Your task to perform on an android device: Go to Google maps Image 0: 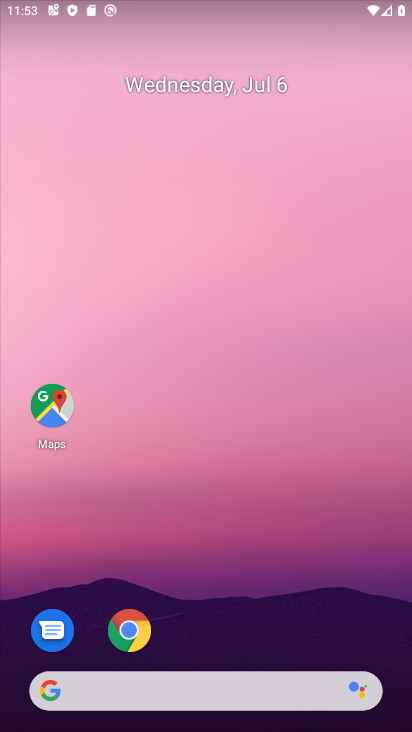
Step 0: drag from (171, 651) to (181, 309)
Your task to perform on an android device: Go to Google maps Image 1: 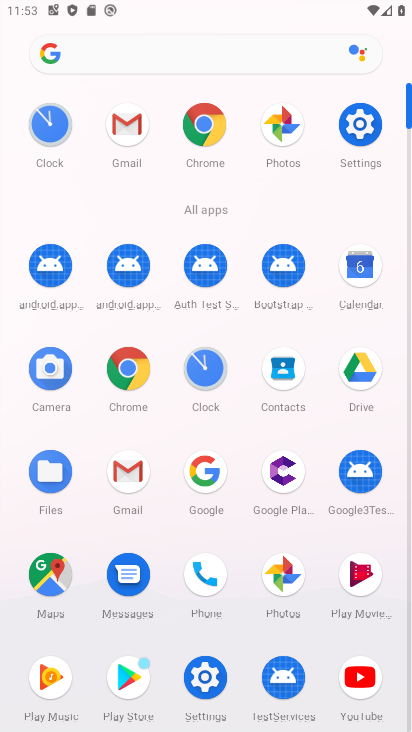
Step 1: click (60, 563)
Your task to perform on an android device: Go to Google maps Image 2: 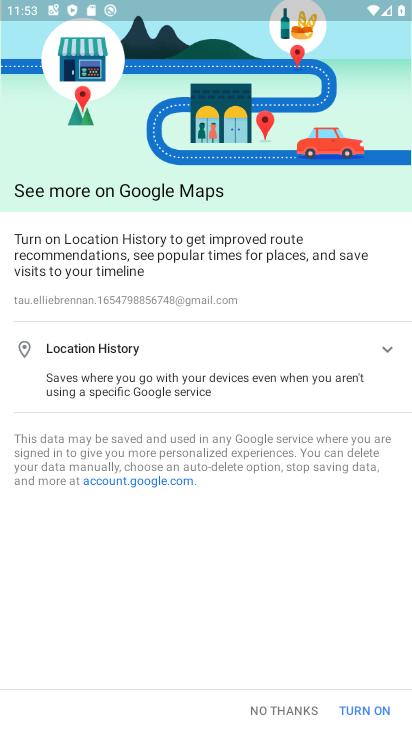
Step 2: click (268, 717)
Your task to perform on an android device: Go to Google maps Image 3: 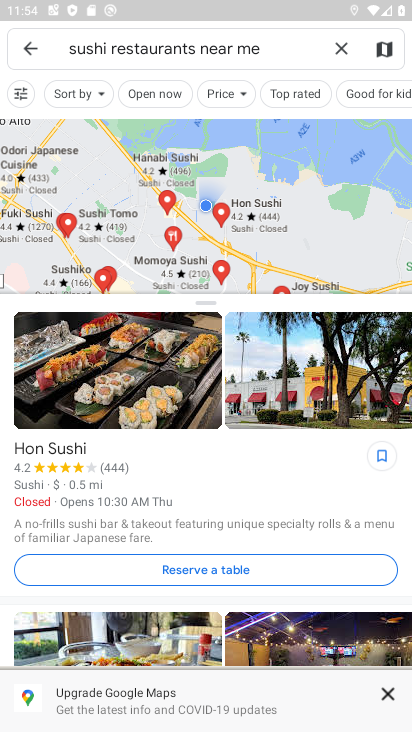
Step 3: task complete